Your task to perform on an android device: Open maps Image 0: 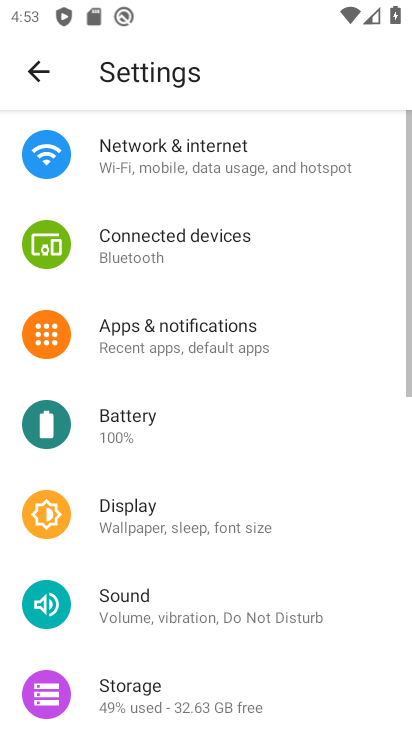
Step 0: press home button
Your task to perform on an android device: Open maps Image 1: 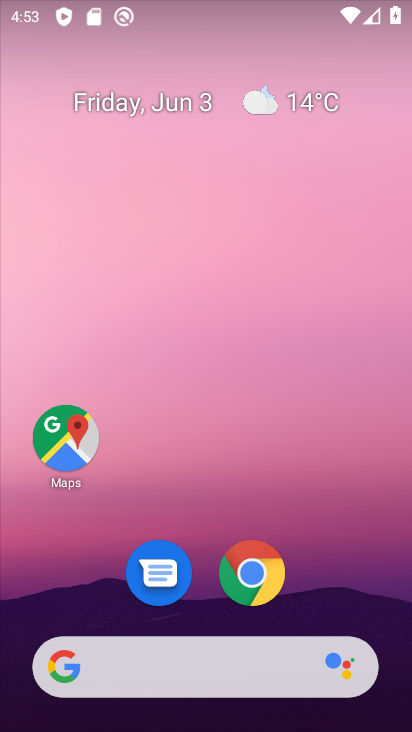
Step 1: click (63, 440)
Your task to perform on an android device: Open maps Image 2: 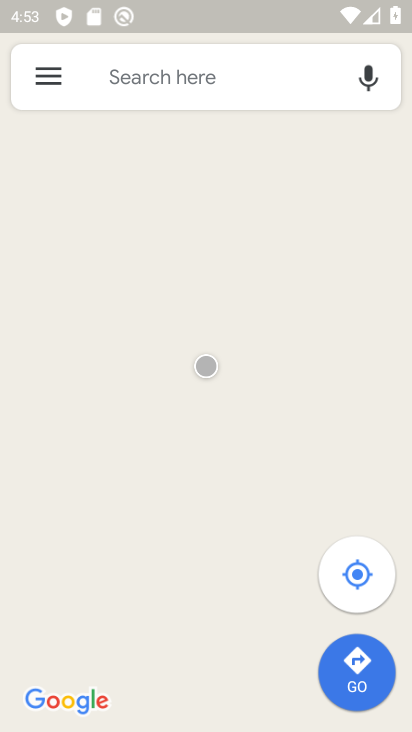
Step 2: task complete